Your task to perform on an android device: Open Android settings Image 0: 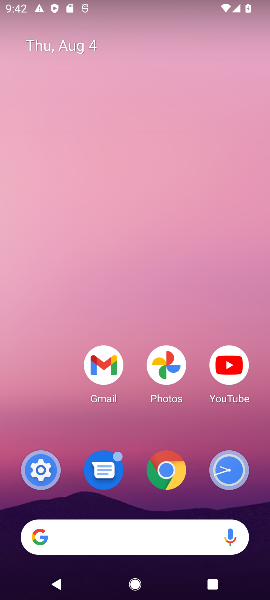
Step 0: click (45, 476)
Your task to perform on an android device: Open Android settings Image 1: 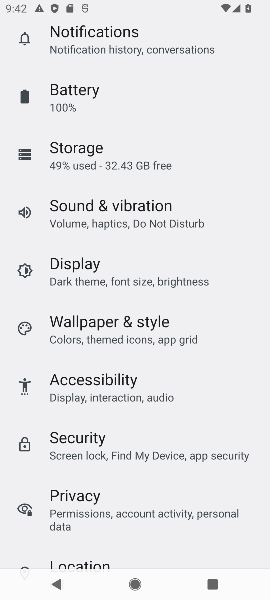
Step 1: drag from (151, 530) to (114, 158)
Your task to perform on an android device: Open Android settings Image 2: 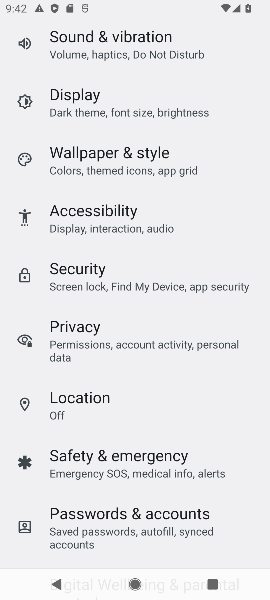
Step 2: drag from (99, 412) to (99, 72)
Your task to perform on an android device: Open Android settings Image 3: 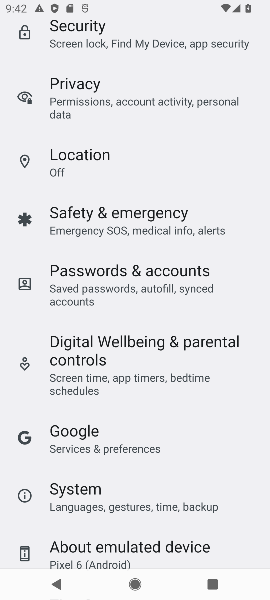
Step 3: click (134, 484)
Your task to perform on an android device: Open Android settings Image 4: 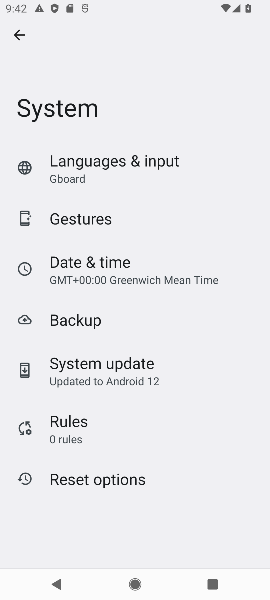
Step 4: task complete